Your task to perform on an android device: change notification settings in the gmail app Image 0: 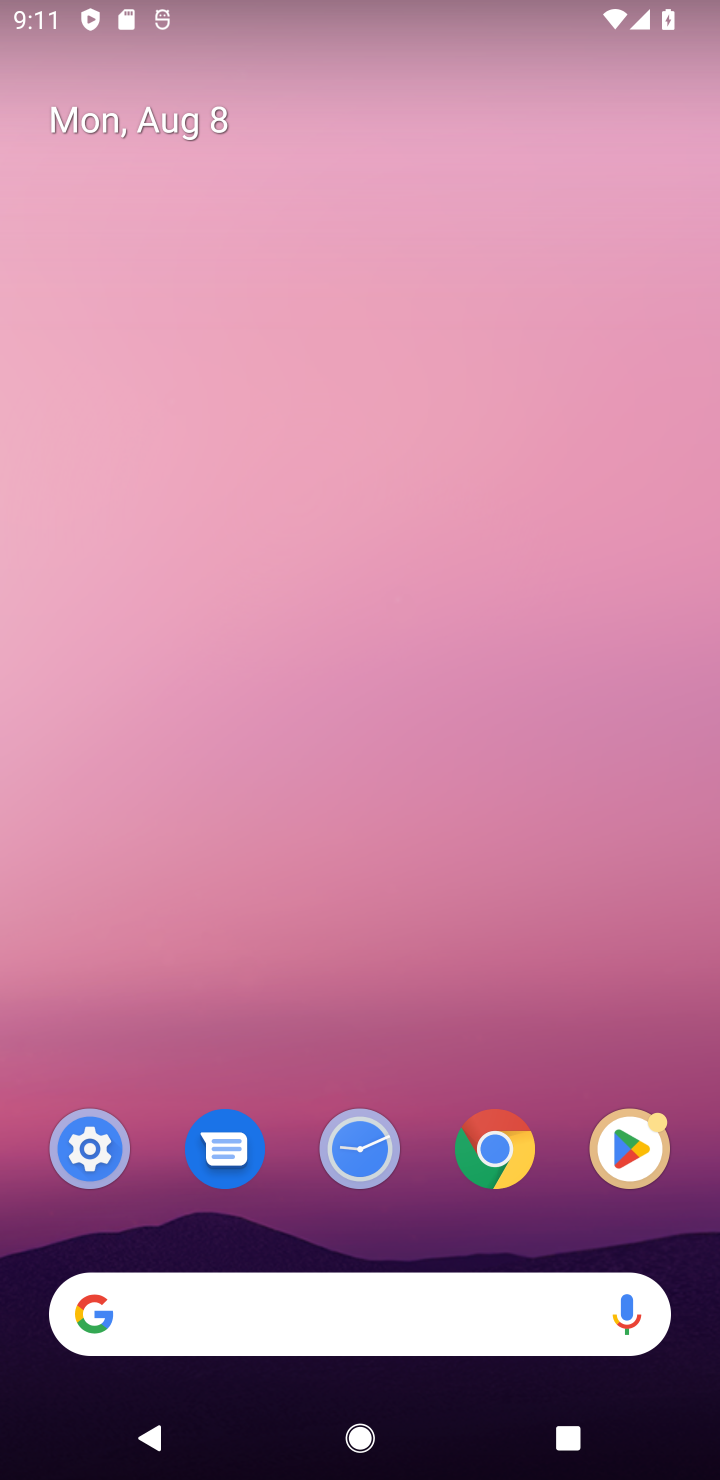
Step 0: drag from (400, 1084) to (395, 588)
Your task to perform on an android device: change notification settings in the gmail app Image 1: 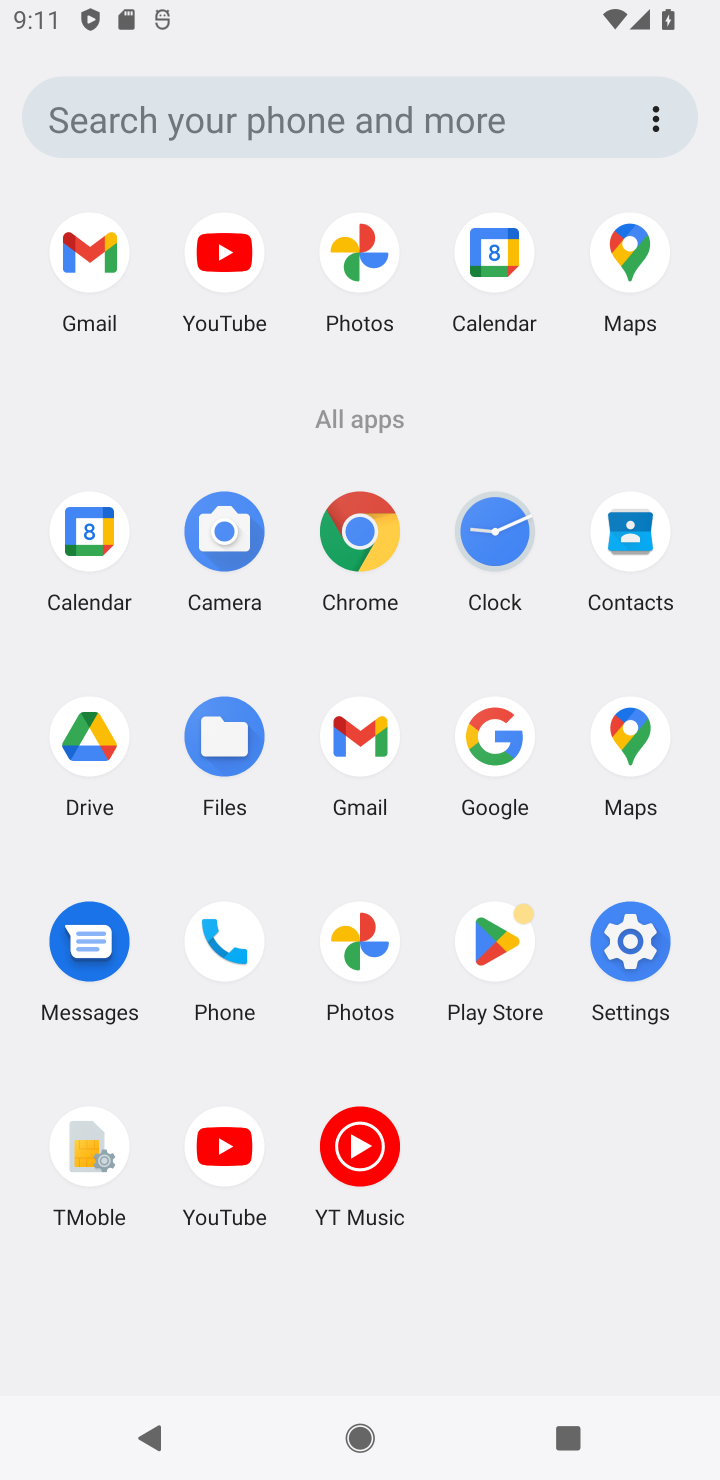
Step 1: click (92, 421)
Your task to perform on an android device: change notification settings in the gmail app Image 2: 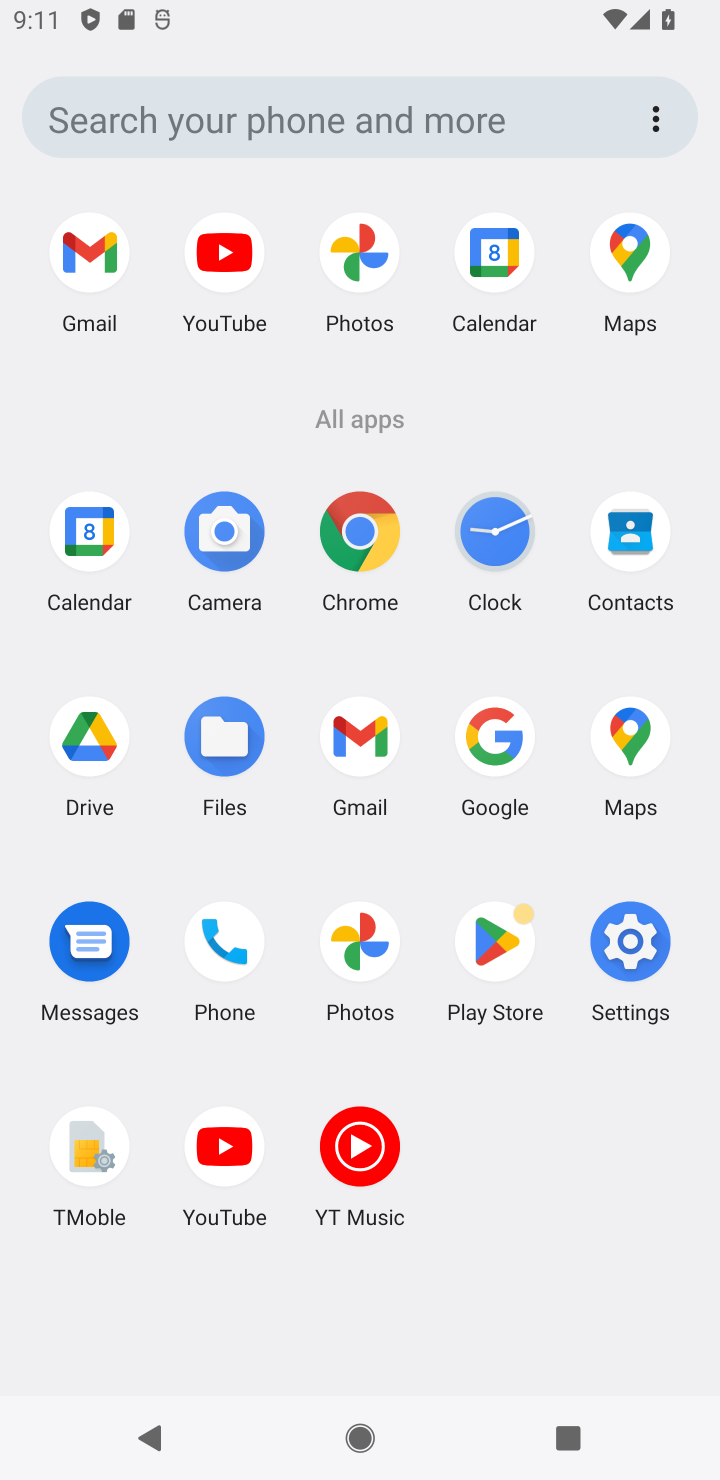
Step 2: click (81, 275)
Your task to perform on an android device: change notification settings in the gmail app Image 3: 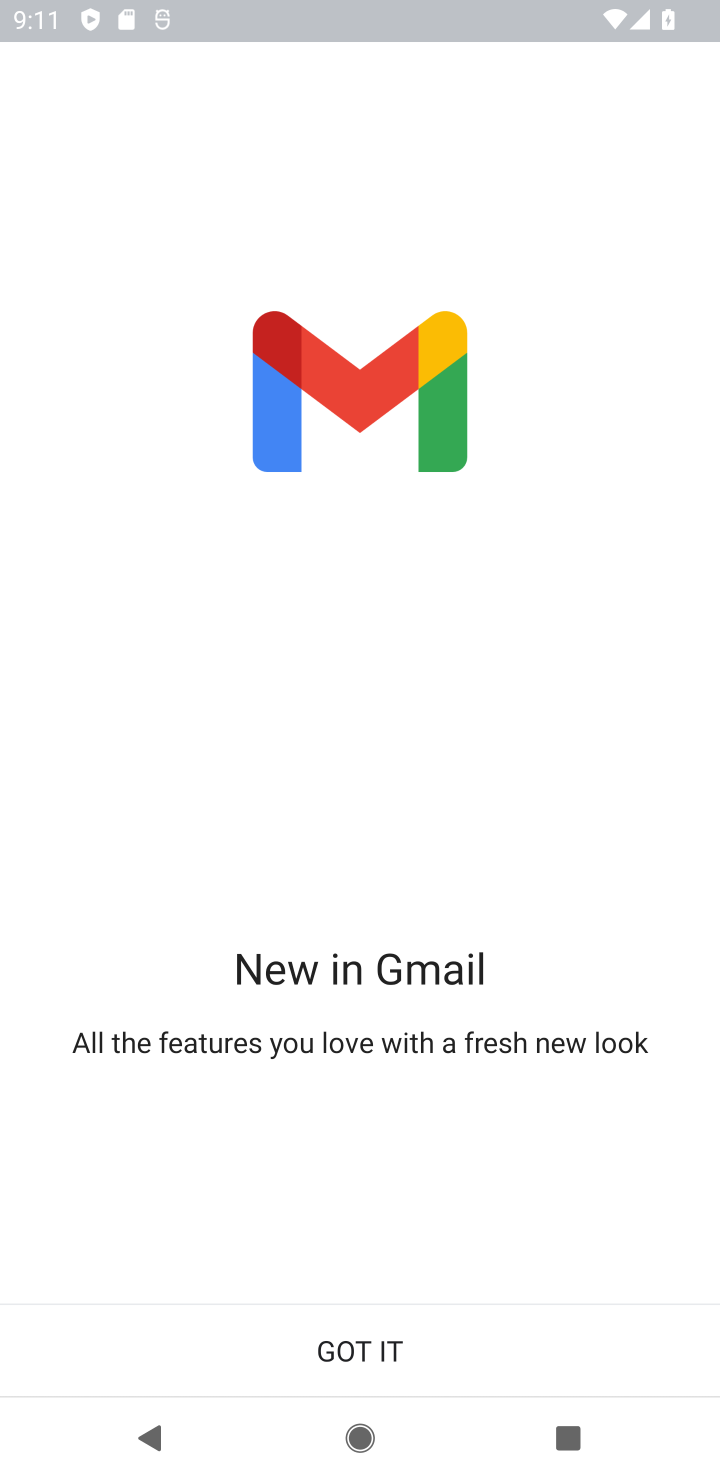
Step 3: click (384, 1359)
Your task to perform on an android device: change notification settings in the gmail app Image 4: 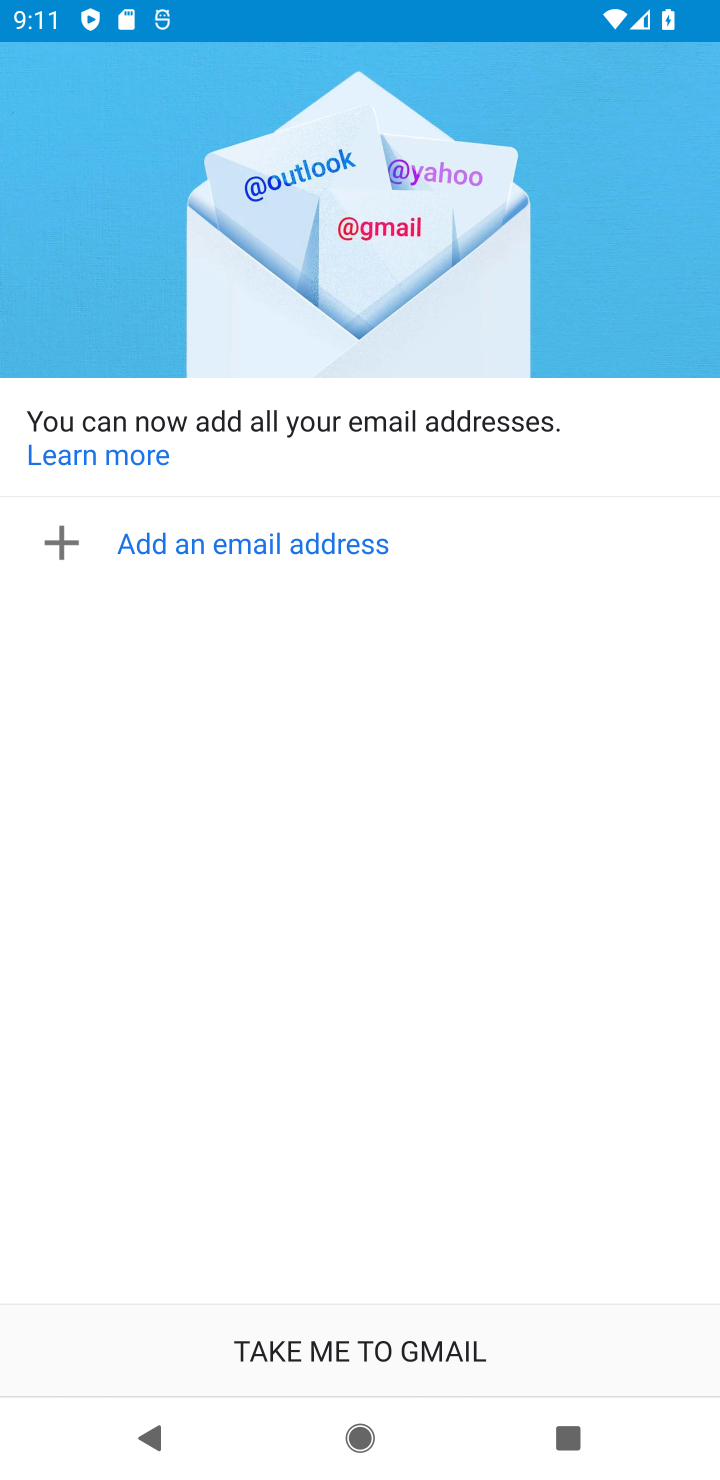
Step 4: click (366, 1349)
Your task to perform on an android device: change notification settings in the gmail app Image 5: 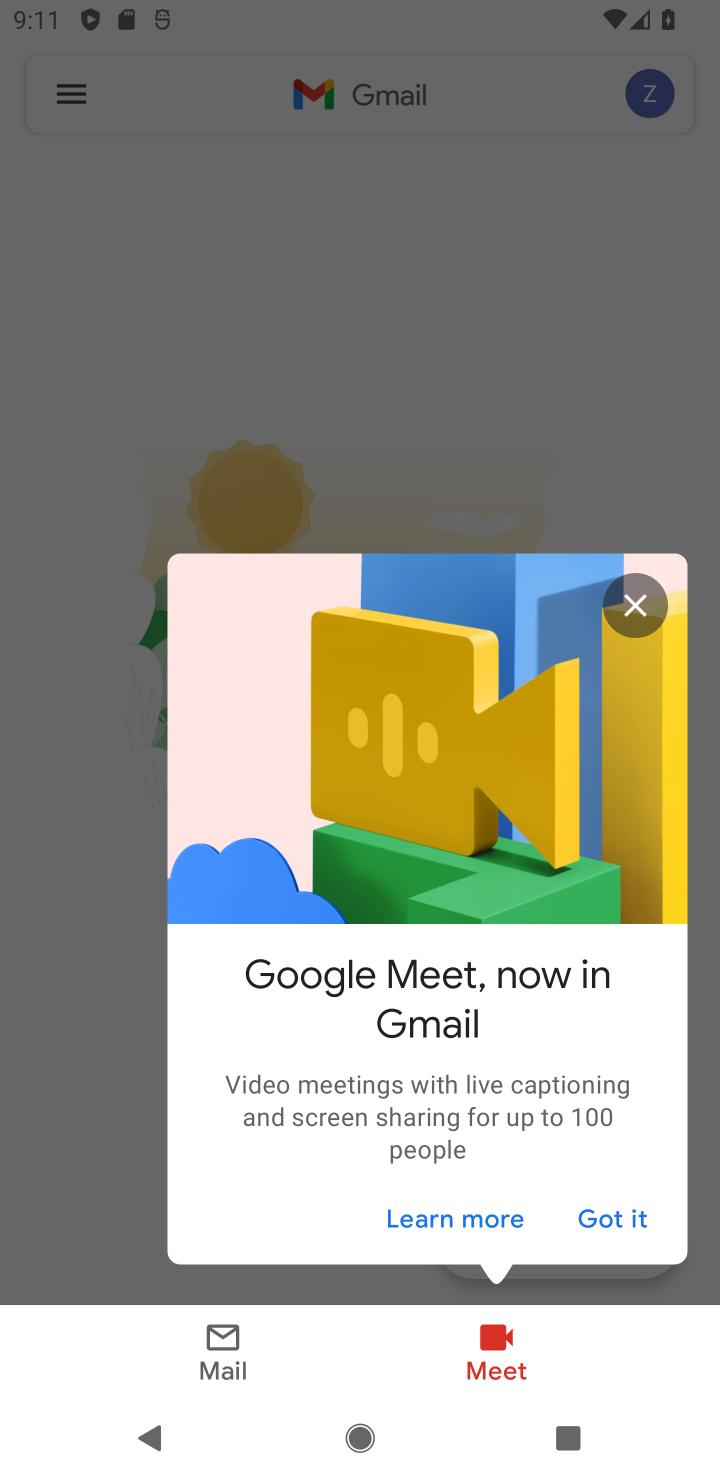
Step 5: click (599, 1231)
Your task to perform on an android device: change notification settings in the gmail app Image 6: 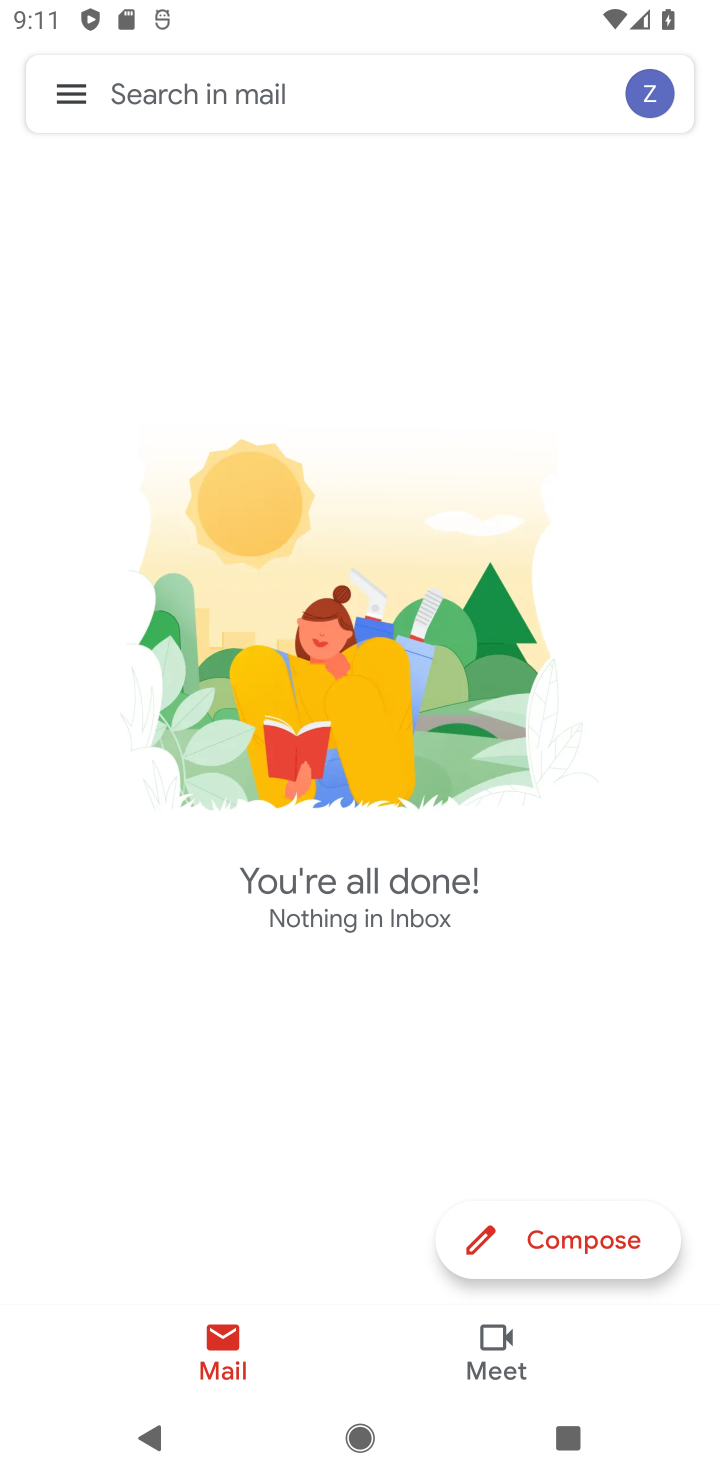
Step 6: click (63, 91)
Your task to perform on an android device: change notification settings in the gmail app Image 7: 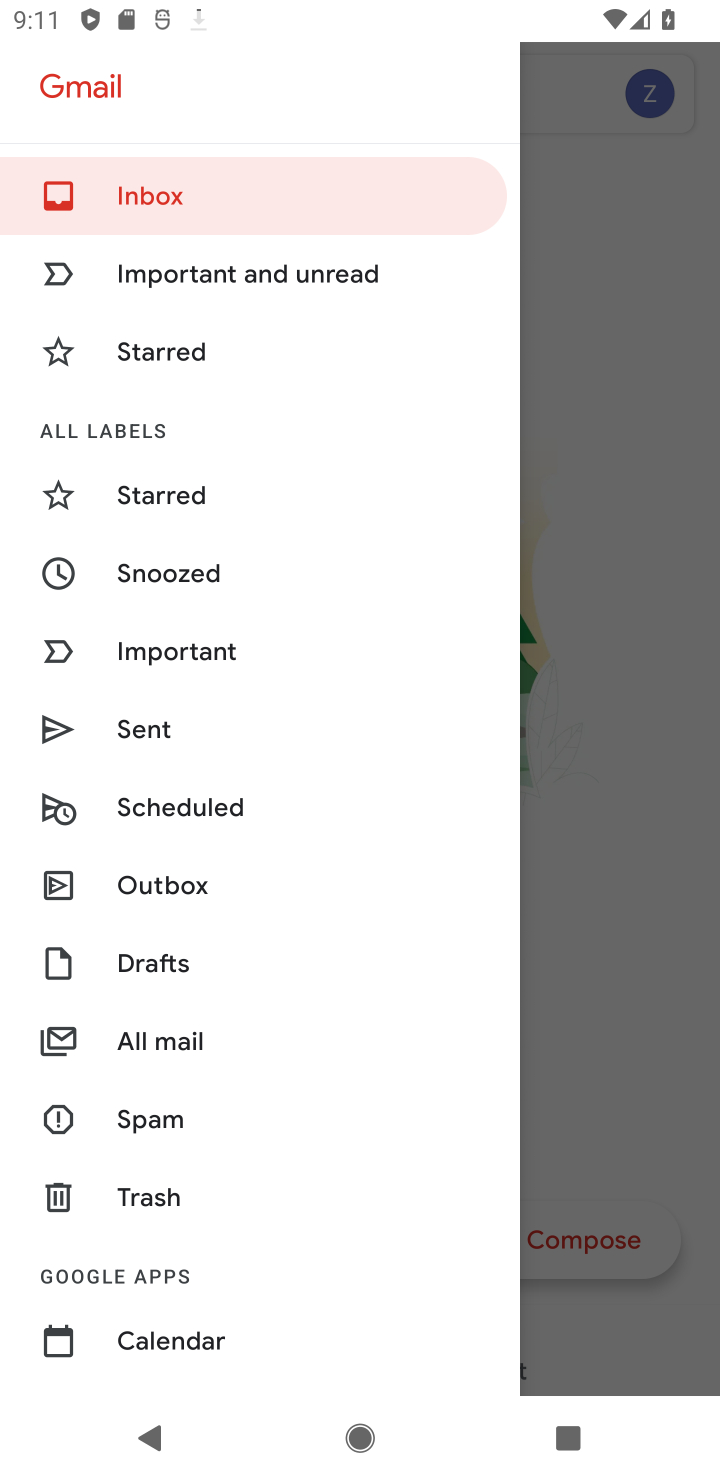
Step 7: drag from (173, 1277) to (221, 612)
Your task to perform on an android device: change notification settings in the gmail app Image 8: 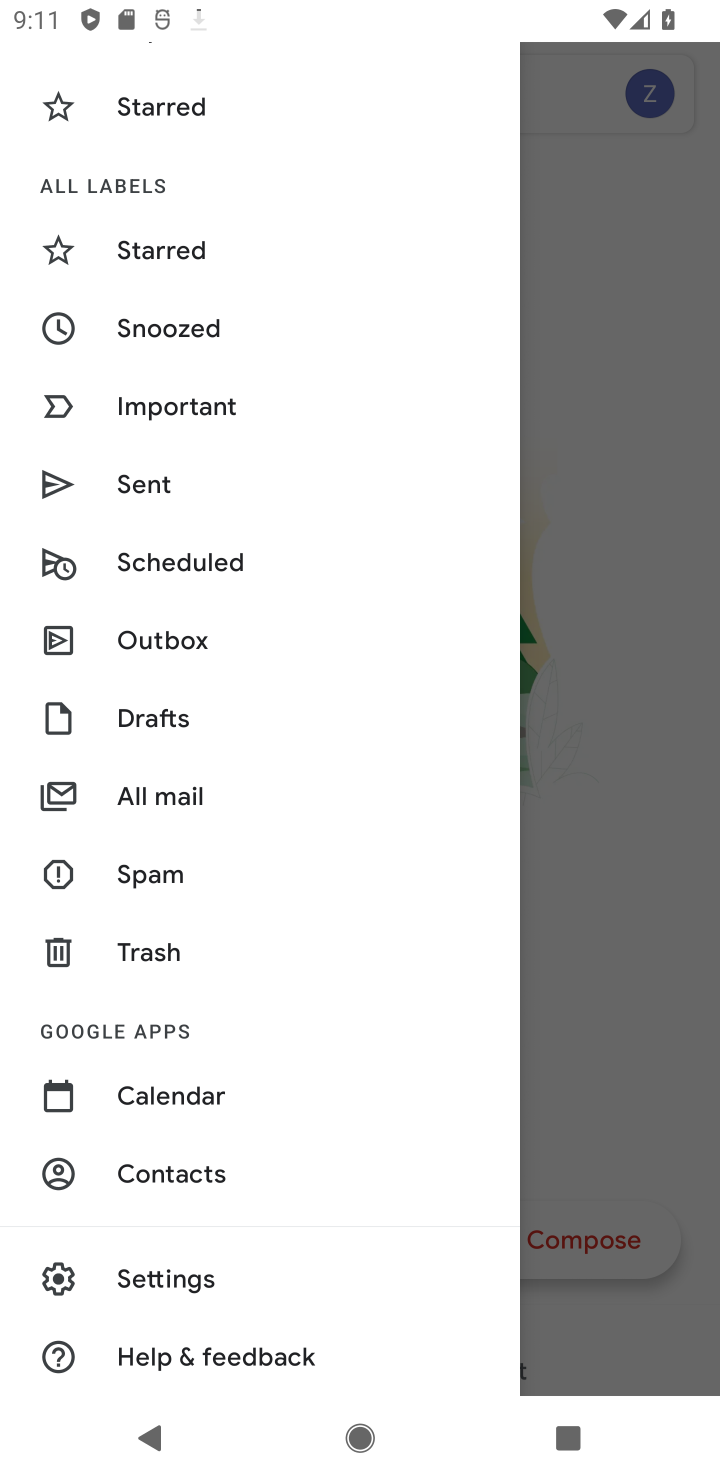
Step 8: click (160, 1295)
Your task to perform on an android device: change notification settings in the gmail app Image 9: 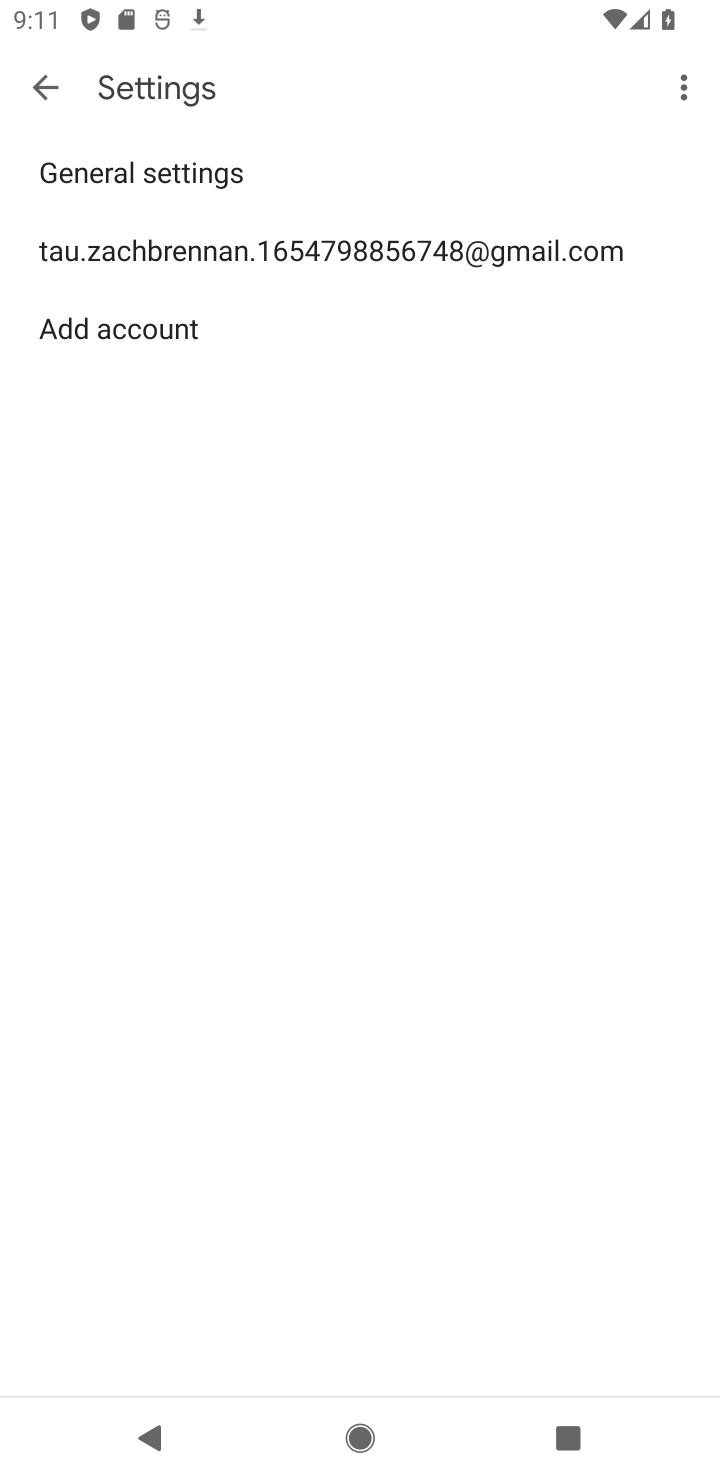
Step 9: click (199, 245)
Your task to perform on an android device: change notification settings in the gmail app Image 10: 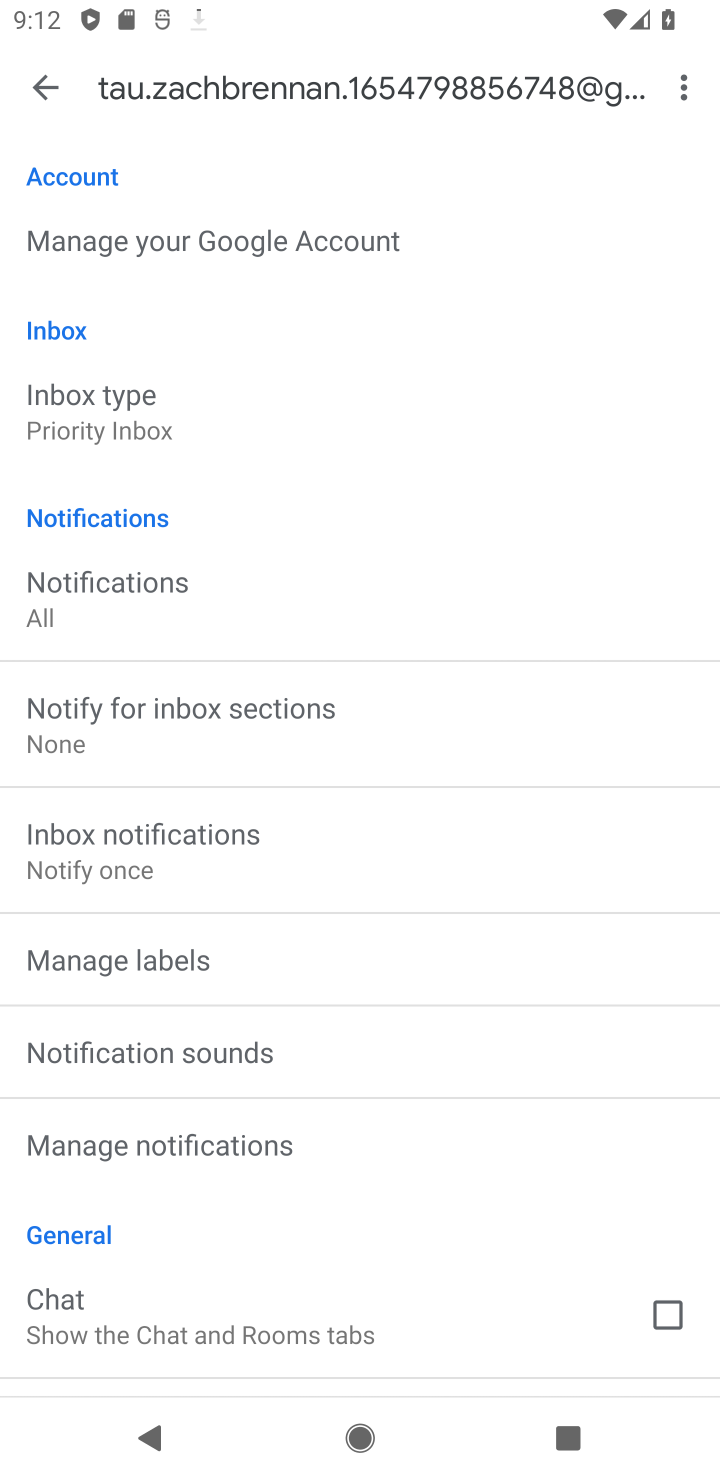
Step 10: click (130, 829)
Your task to perform on an android device: change notification settings in the gmail app Image 11: 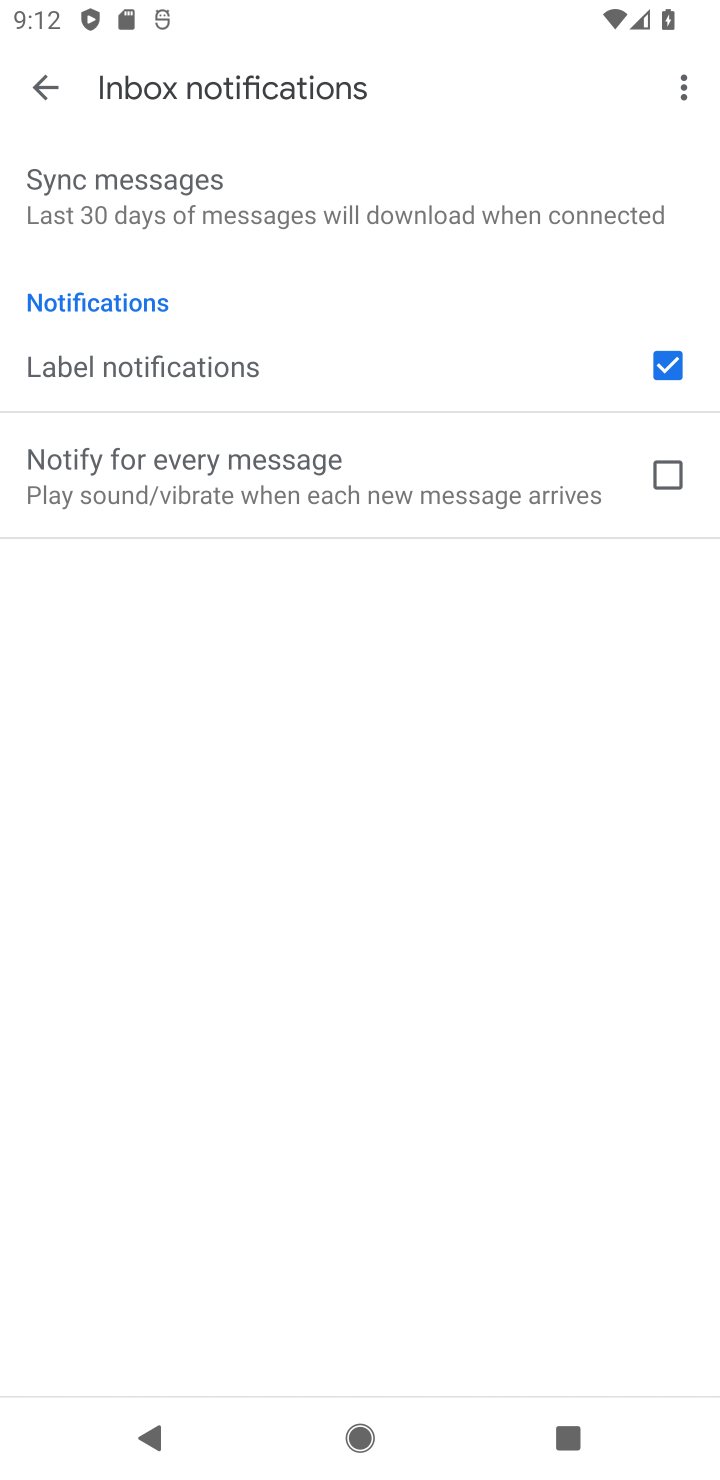
Step 11: click (661, 468)
Your task to perform on an android device: change notification settings in the gmail app Image 12: 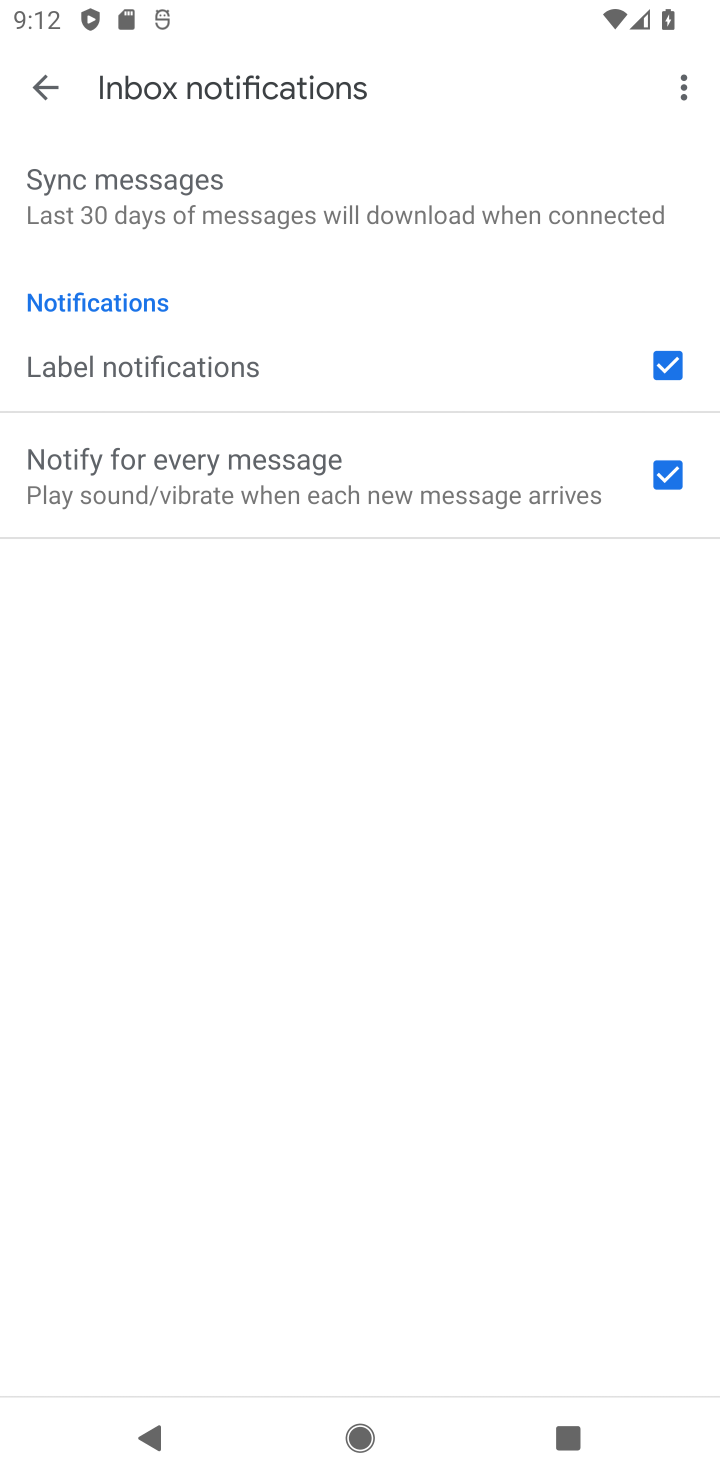
Step 12: task complete